Your task to perform on an android device: Search for the best gaming monitor on Best Buy Image 0: 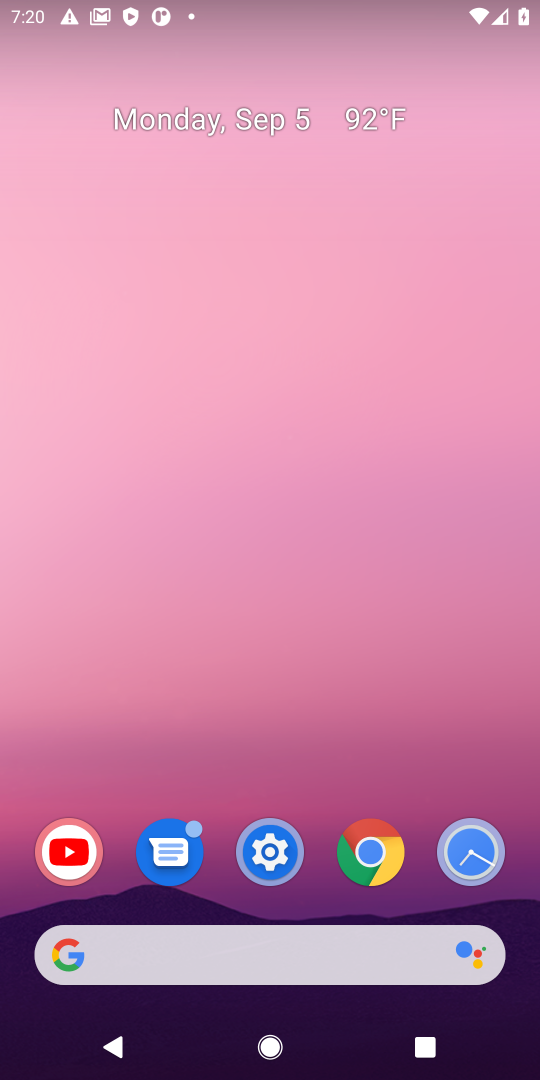
Step 0: click (381, 863)
Your task to perform on an android device: Search for the best gaming monitor on Best Buy Image 1: 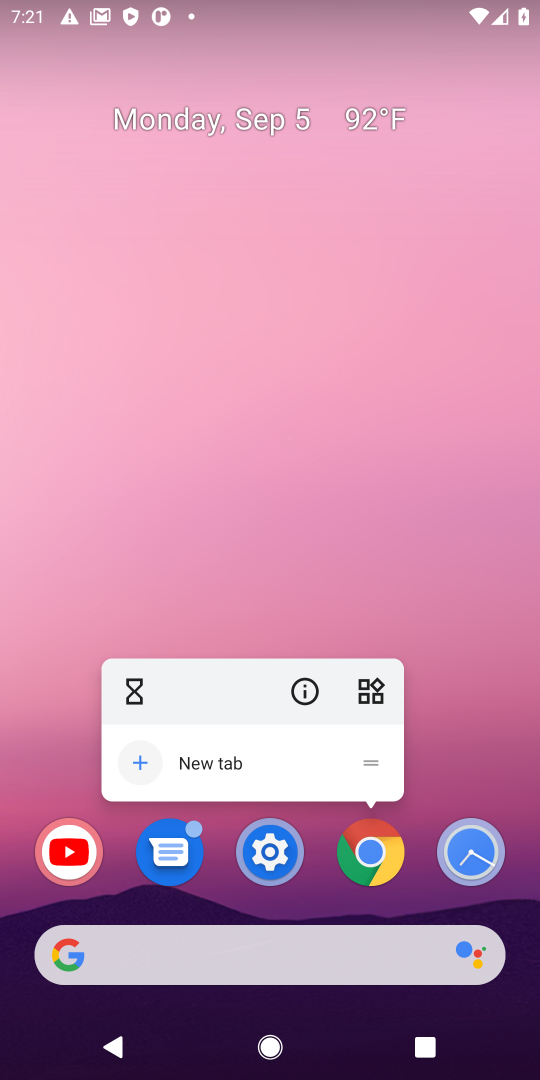
Step 1: click (378, 859)
Your task to perform on an android device: Search for the best gaming monitor on Best Buy Image 2: 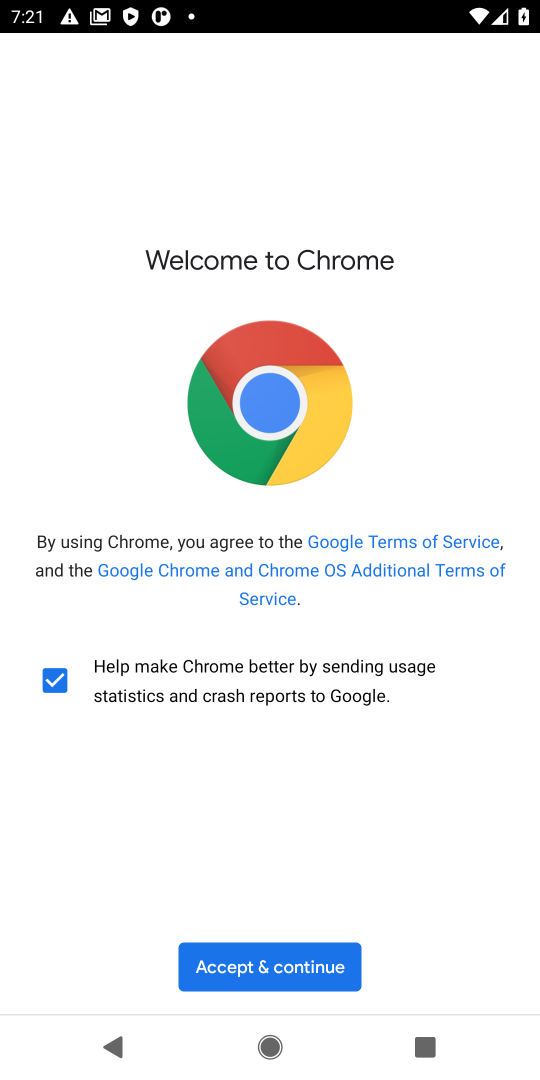
Step 2: click (285, 970)
Your task to perform on an android device: Search for the best gaming monitor on Best Buy Image 3: 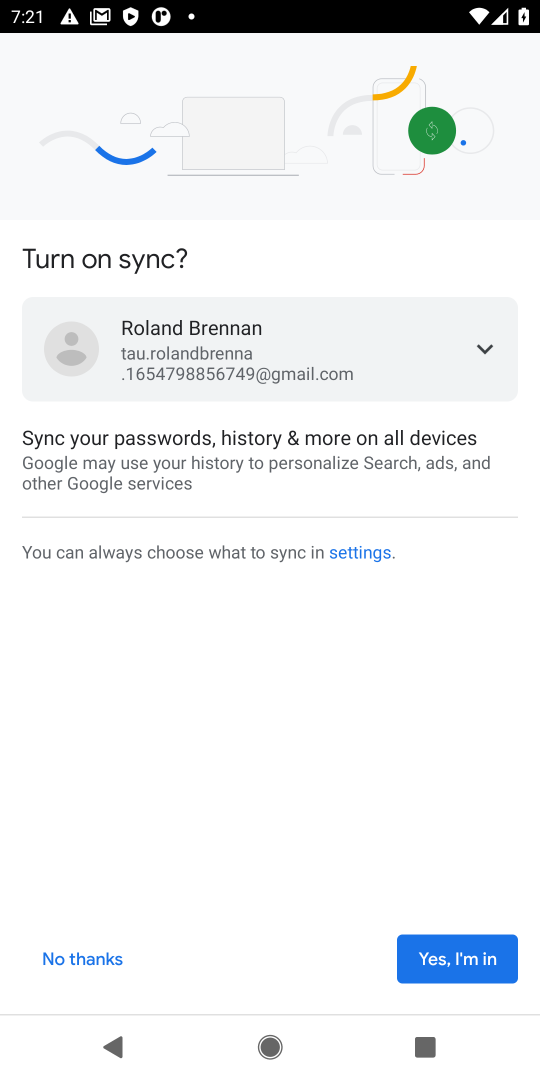
Step 3: click (486, 942)
Your task to perform on an android device: Search for the best gaming monitor on Best Buy Image 4: 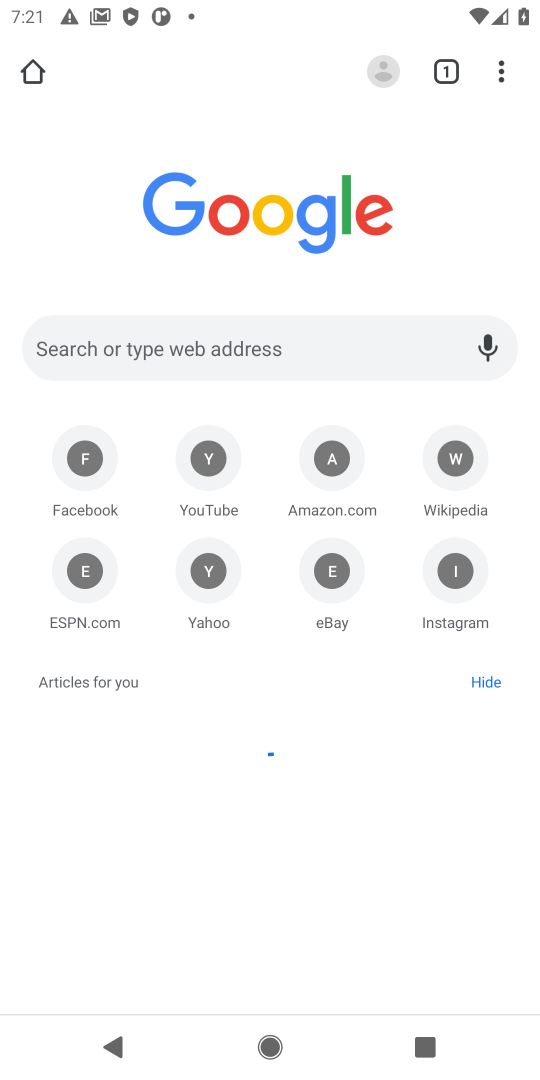
Step 4: click (259, 358)
Your task to perform on an android device: Search for the best gaming monitor on Best Buy Image 5: 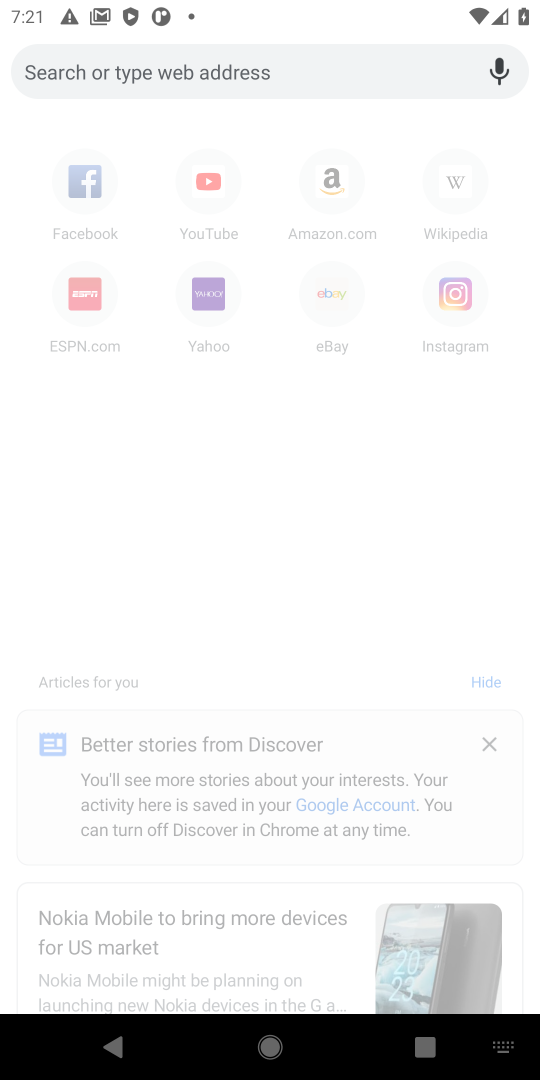
Step 5: type "best buy"
Your task to perform on an android device: Search for the best gaming monitor on Best Buy Image 6: 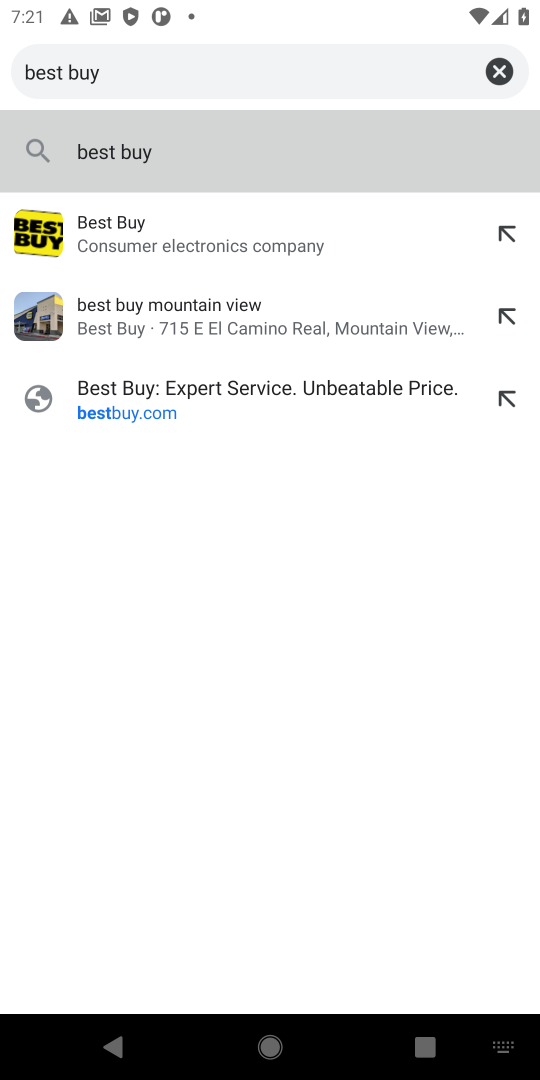
Step 6: type ""
Your task to perform on an android device: Search for the best gaming monitor on Best Buy Image 7: 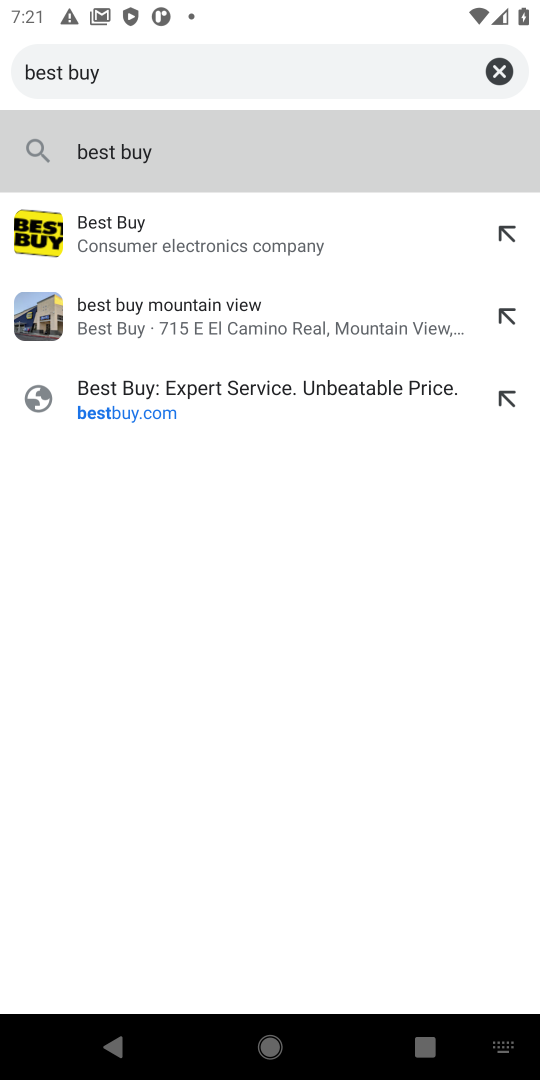
Step 7: press enter
Your task to perform on an android device: Search for the best gaming monitor on Best Buy Image 8: 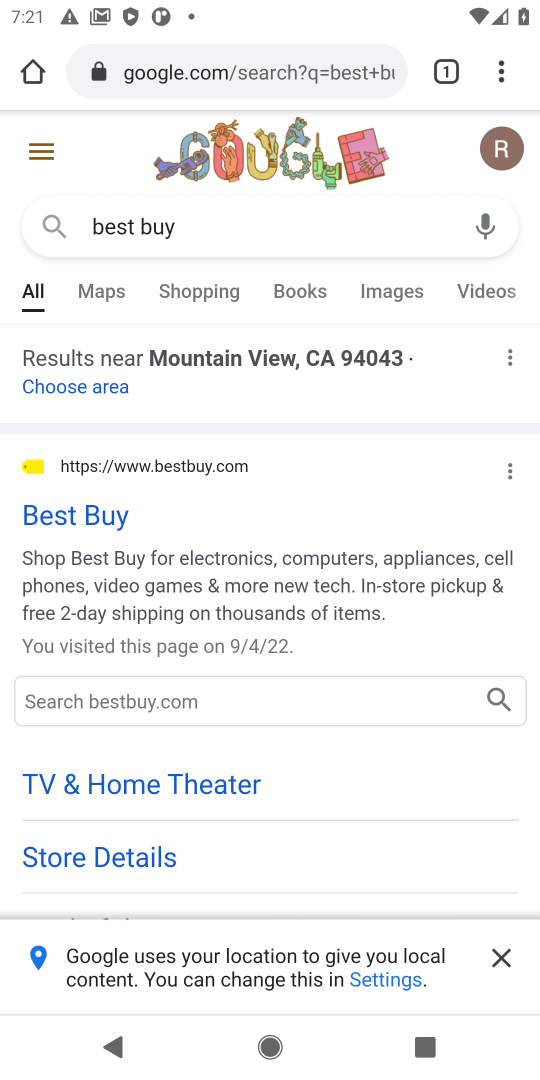
Step 8: click (66, 503)
Your task to perform on an android device: Search for the best gaming monitor on Best Buy Image 9: 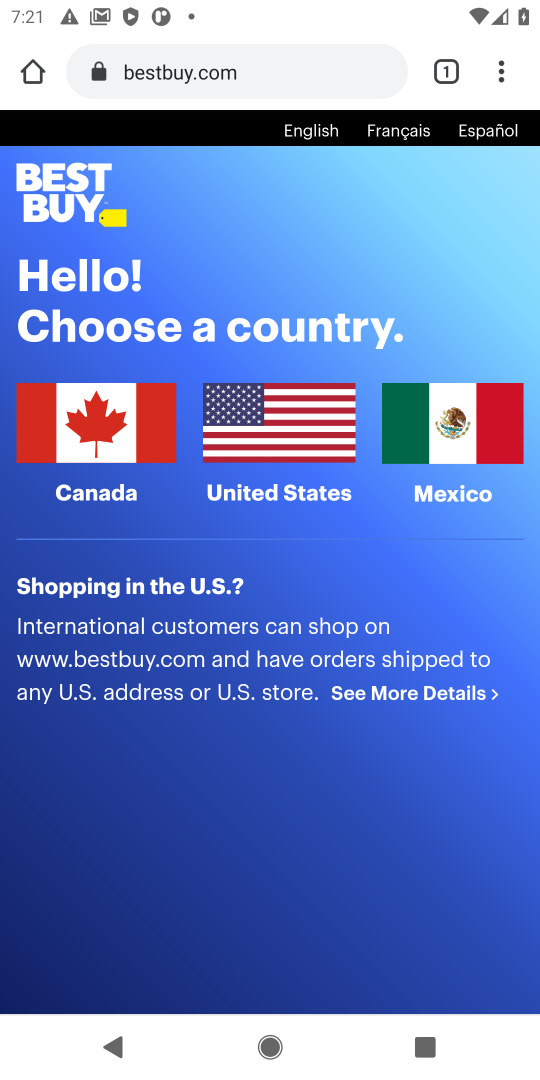
Step 9: click (252, 423)
Your task to perform on an android device: Search for the best gaming monitor on Best Buy Image 10: 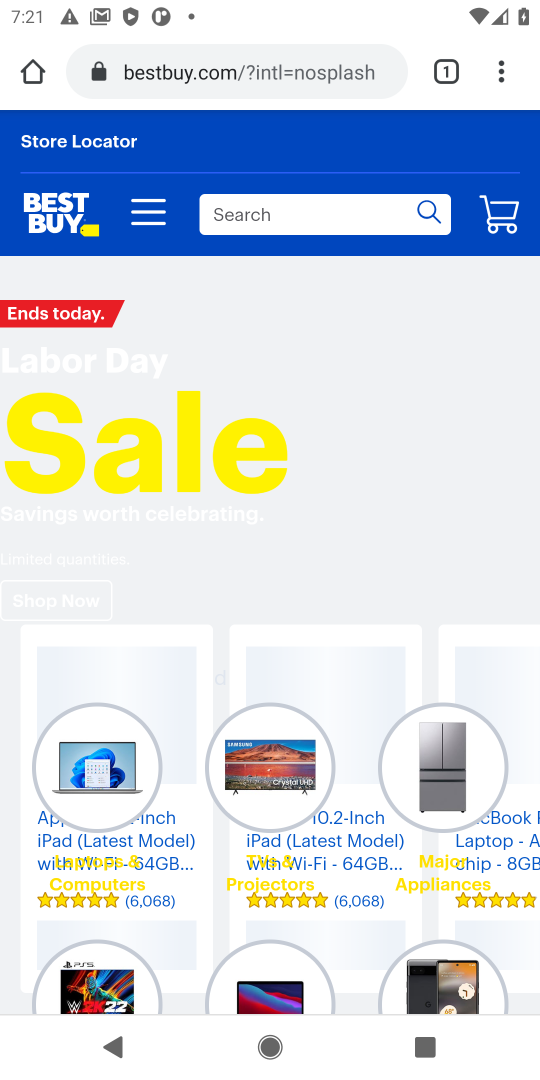
Step 10: click (291, 217)
Your task to perform on an android device: Search for the best gaming monitor on Best Buy Image 11: 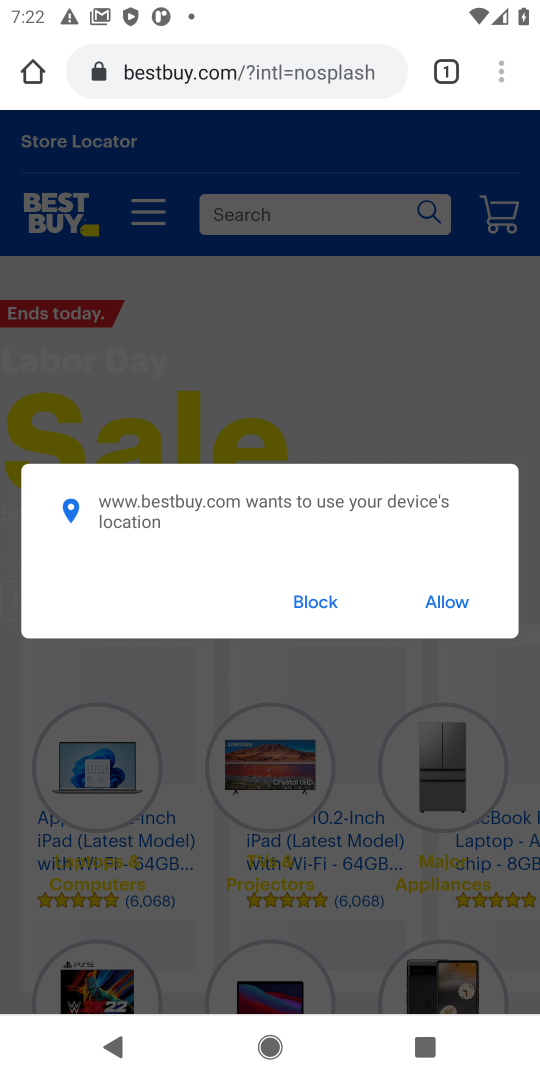
Step 11: click (468, 603)
Your task to perform on an android device: Search for the best gaming monitor on Best Buy Image 12: 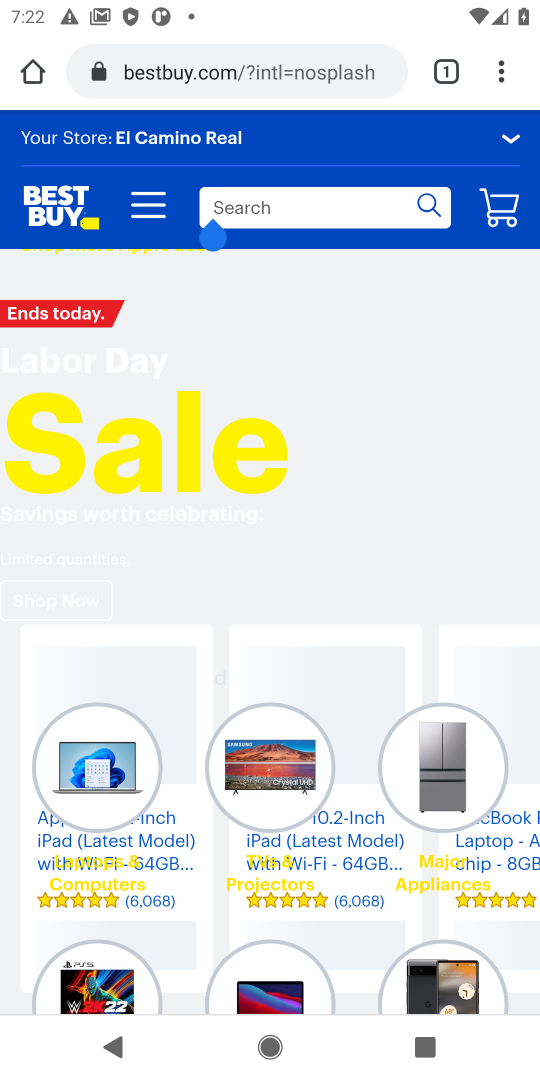
Step 12: click (320, 211)
Your task to perform on an android device: Search for the best gaming monitor on Best Buy Image 13: 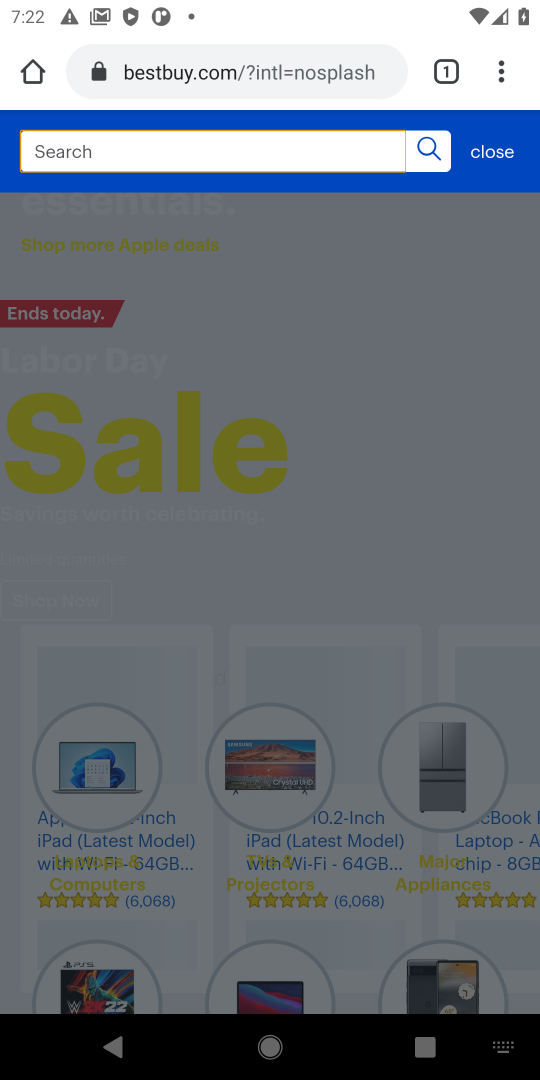
Step 13: type "best gaming monitor"
Your task to perform on an android device: Search for the best gaming monitor on Best Buy Image 14: 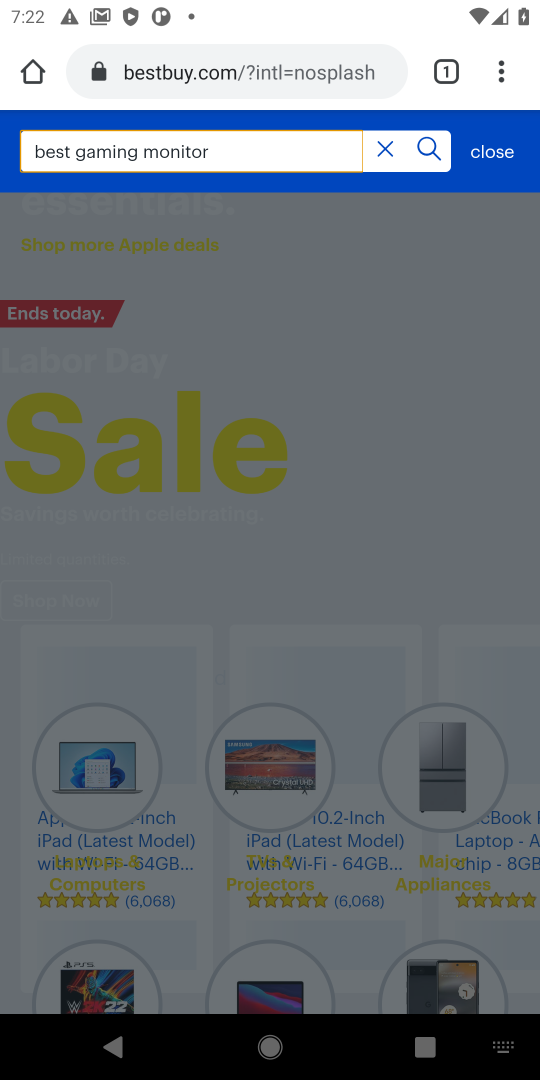
Step 14: type ""
Your task to perform on an android device: Search for the best gaming monitor on Best Buy Image 15: 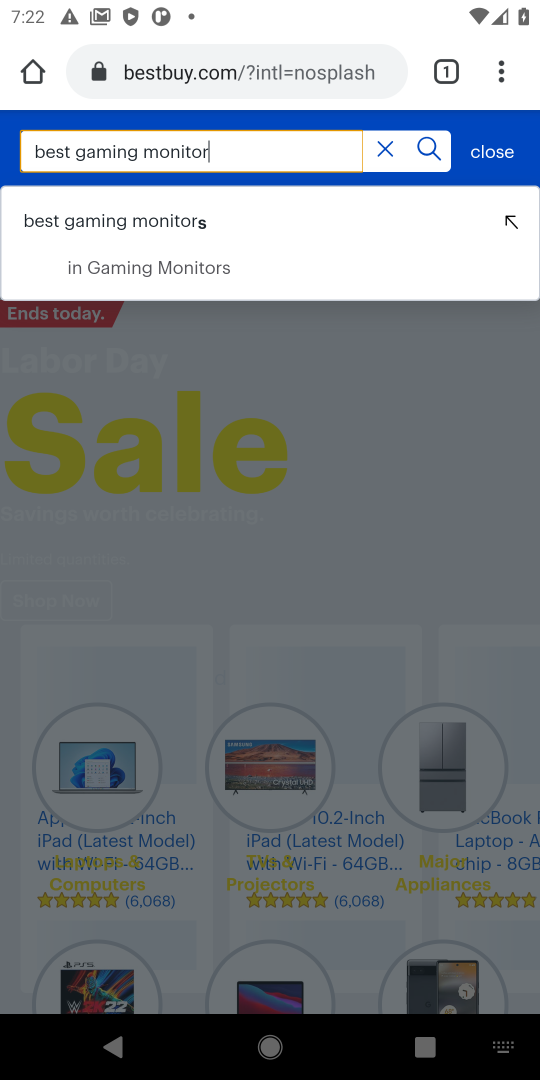
Step 15: press enter
Your task to perform on an android device: Search for the best gaming monitor on Best Buy Image 16: 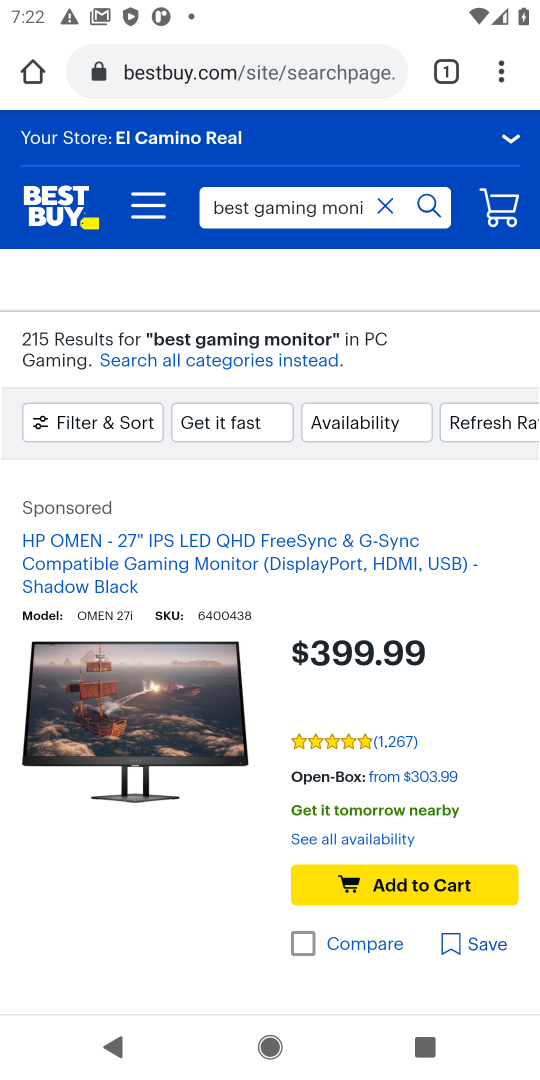
Step 16: click (115, 423)
Your task to perform on an android device: Search for the best gaming monitor on Best Buy Image 17: 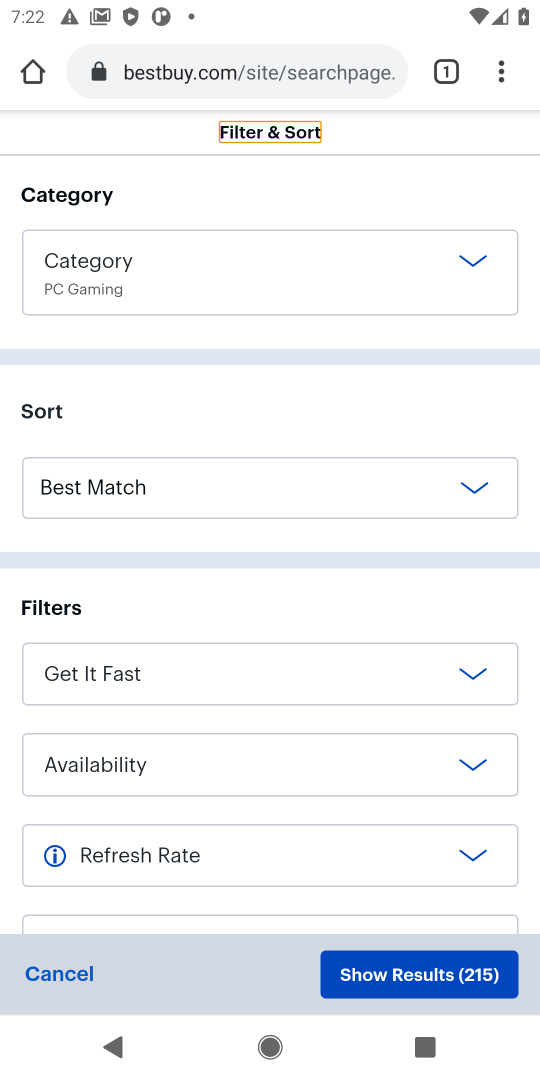
Step 17: drag from (237, 600) to (236, 369)
Your task to perform on an android device: Search for the best gaming monitor on Best Buy Image 18: 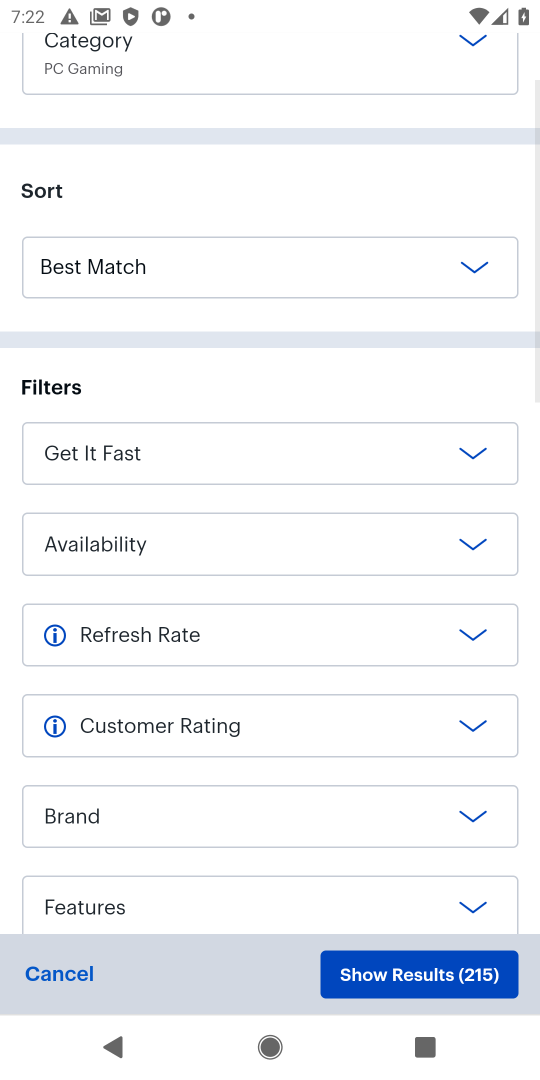
Step 18: drag from (261, 848) to (273, 425)
Your task to perform on an android device: Search for the best gaming monitor on Best Buy Image 19: 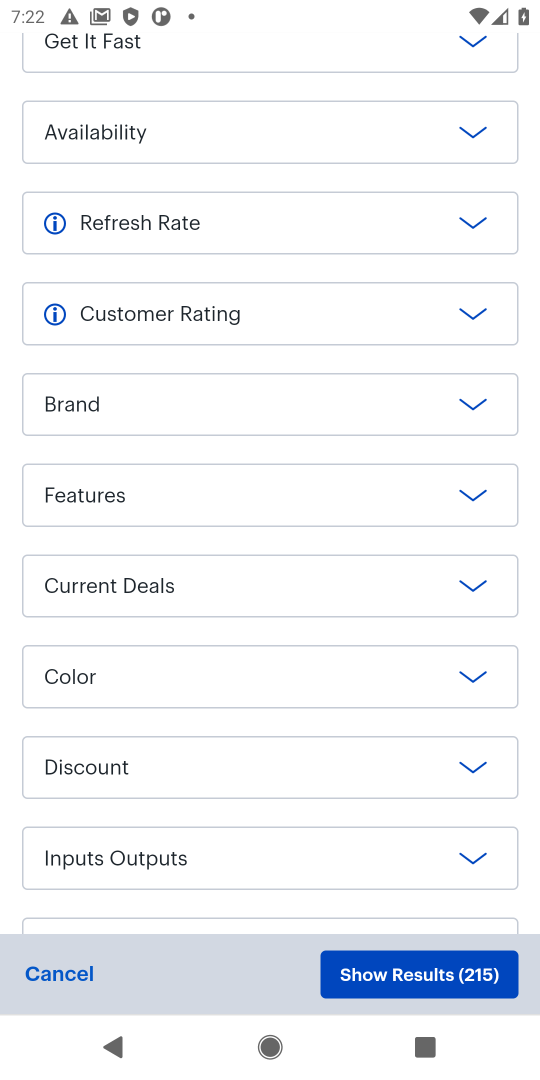
Step 19: click (405, 989)
Your task to perform on an android device: Search for the best gaming monitor on Best Buy Image 20: 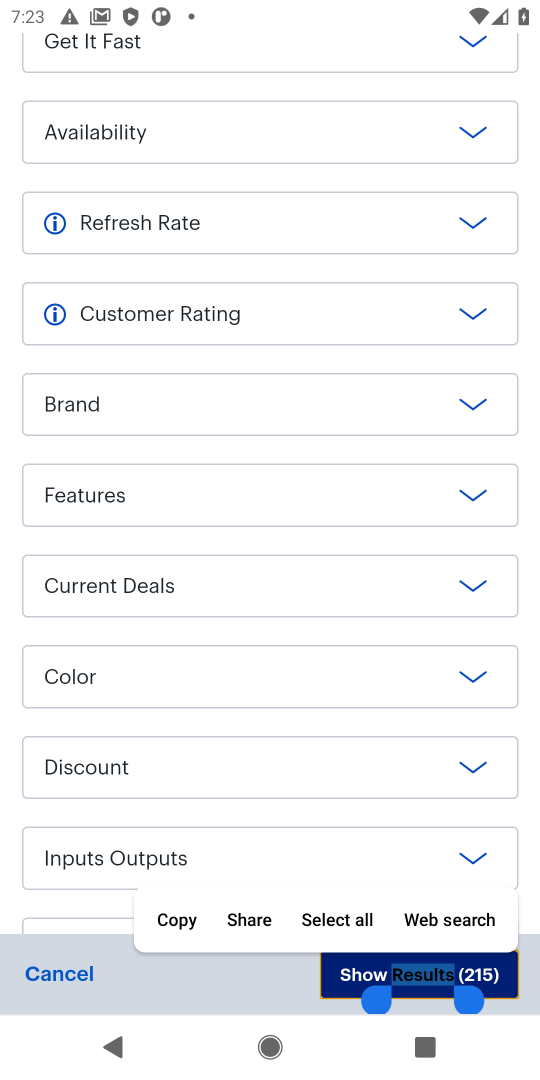
Step 20: click (386, 975)
Your task to perform on an android device: Search for the best gaming monitor on Best Buy Image 21: 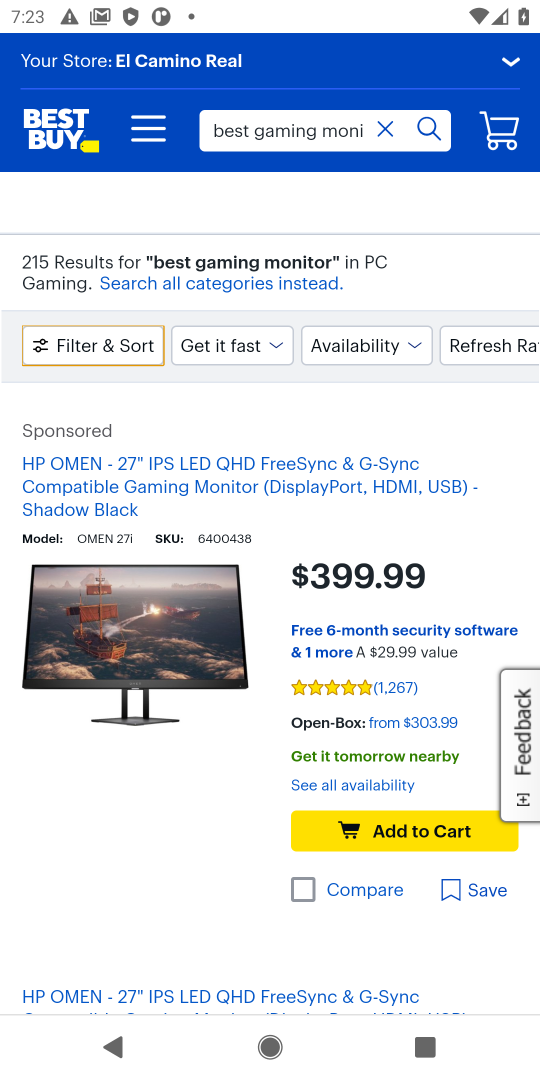
Step 21: task complete